Your task to perform on an android device: open app "ColorNote Notepad Notes" Image 0: 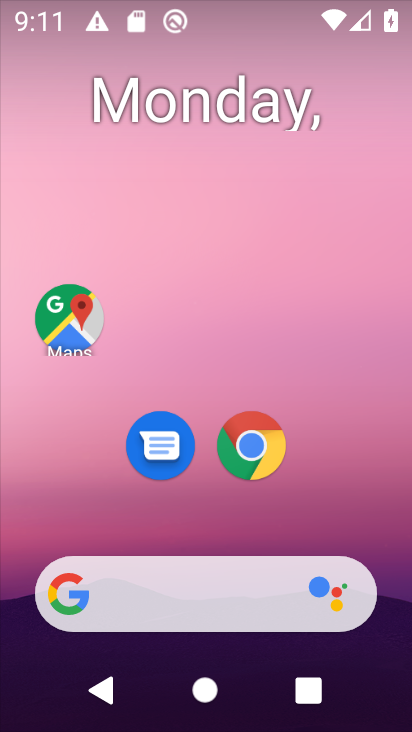
Step 0: drag from (388, 613) to (269, 24)
Your task to perform on an android device: open app "ColorNote Notepad Notes" Image 1: 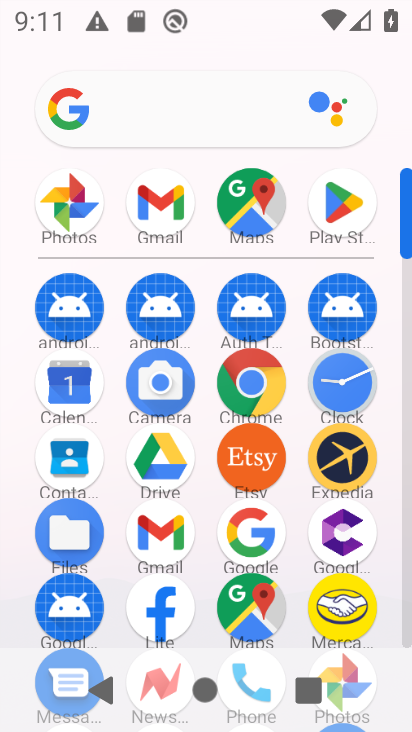
Step 1: click (319, 223)
Your task to perform on an android device: open app "ColorNote Notepad Notes" Image 2: 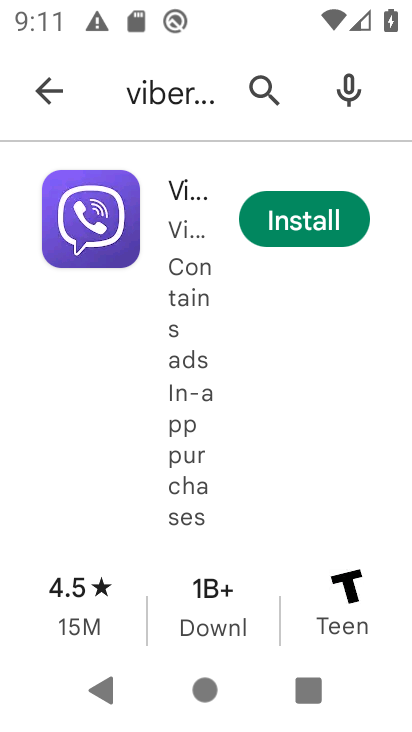
Step 2: press back button
Your task to perform on an android device: open app "ColorNote Notepad Notes" Image 3: 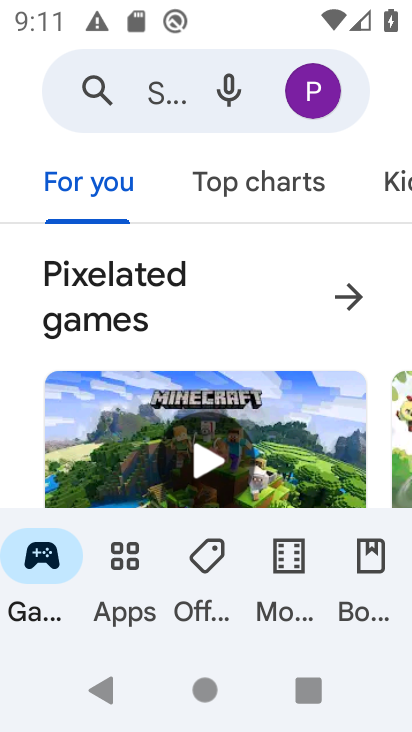
Step 3: click (162, 99)
Your task to perform on an android device: open app "ColorNote Notepad Notes" Image 4: 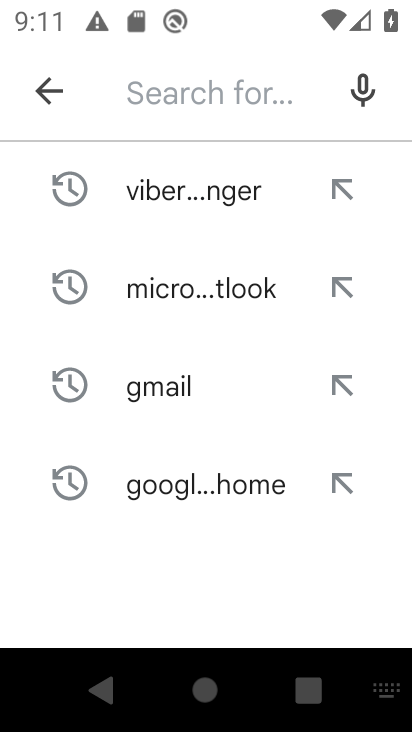
Step 4: type "ColorNote Notepad Notes"
Your task to perform on an android device: open app "ColorNote Notepad Notes" Image 5: 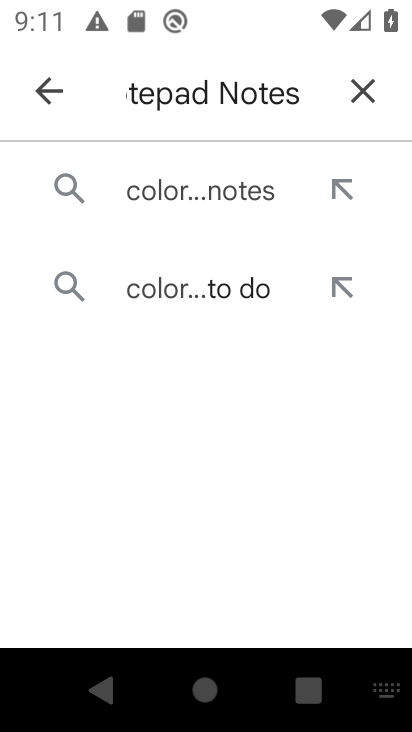
Step 5: click (165, 184)
Your task to perform on an android device: open app "ColorNote Notepad Notes" Image 6: 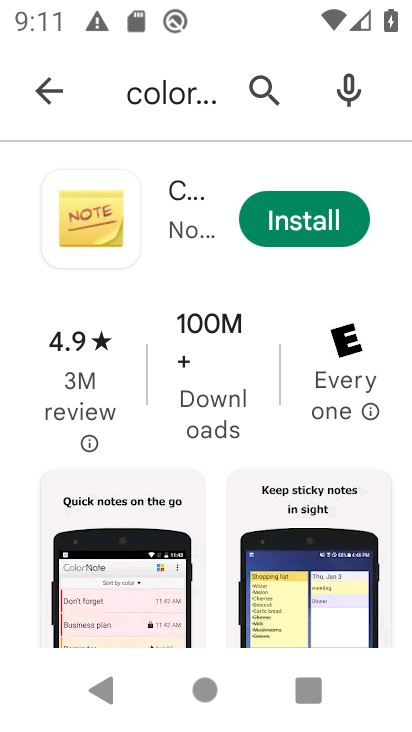
Step 6: task complete